Your task to perform on an android device: move a message to another label in the gmail app Image 0: 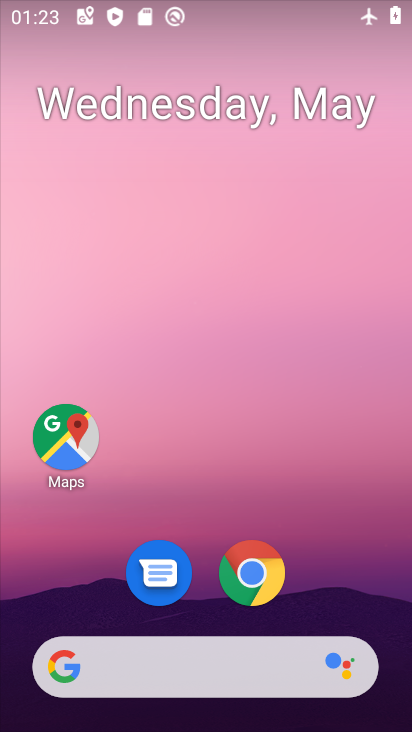
Step 0: drag from (361, 587) to (352, 321)
Your task to perform on an android device: move a message to another label in the gmail app Image 1: 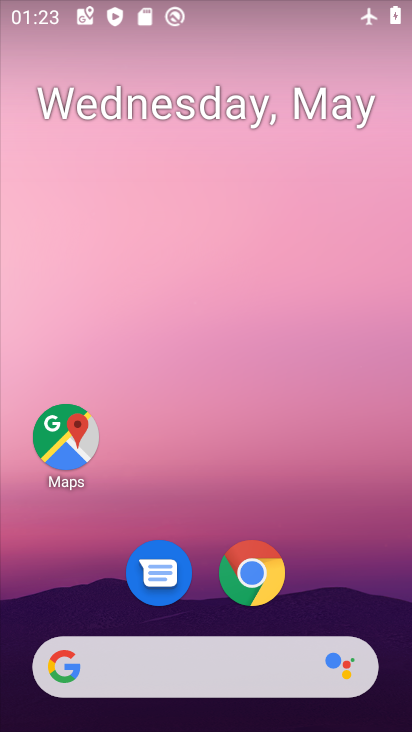
Step 1: drag from (303, 595) to (303, 244)
Your task to perform on an android device: move a message to another label in the gmail app Image 2: 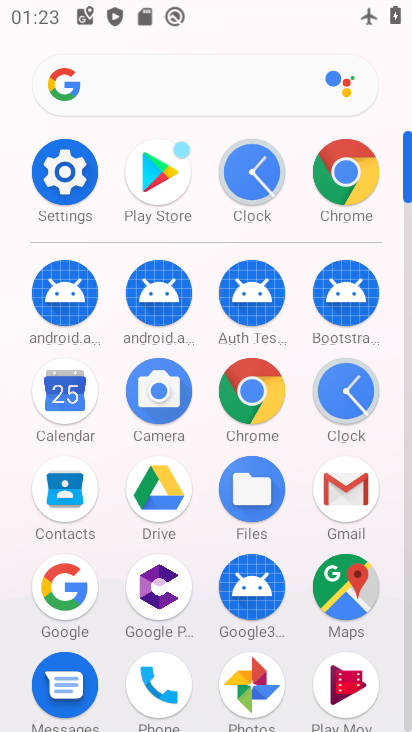
Step 2: click (337, 508)
Your task to perform on an android device: move a message to another label in the gmail app Image 3: 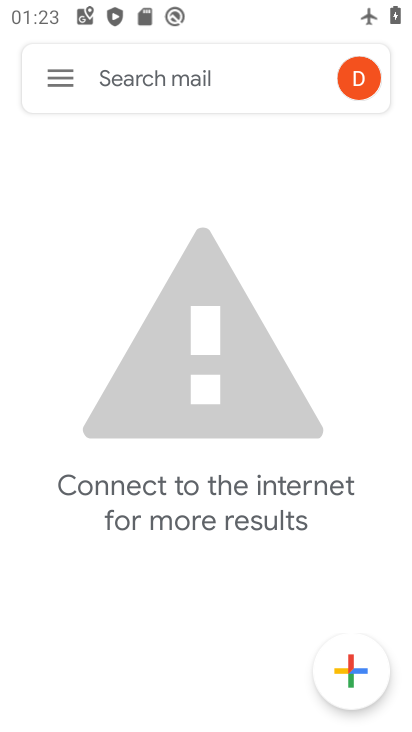
Step 3: click (65, 61)
Your task to perform on an android device: move a message to another label in the gmail app Image 4: 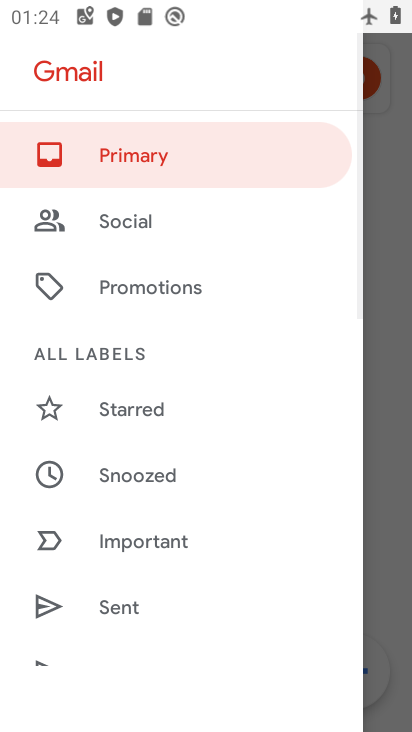
Step 4: drag from (181, 509) to (200, 214)
Your task to perform on an android device: move a message to another label in the gmail app Image 5: 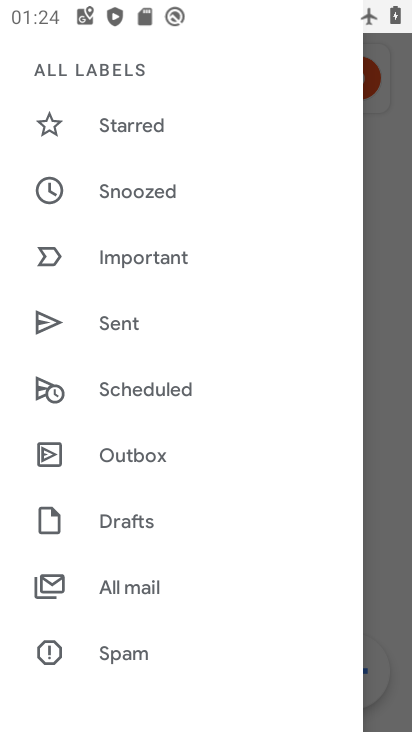
Step 5: click (143, 591)
Your task to perform on an android device: move a message to another label in the gmail app Image 6: 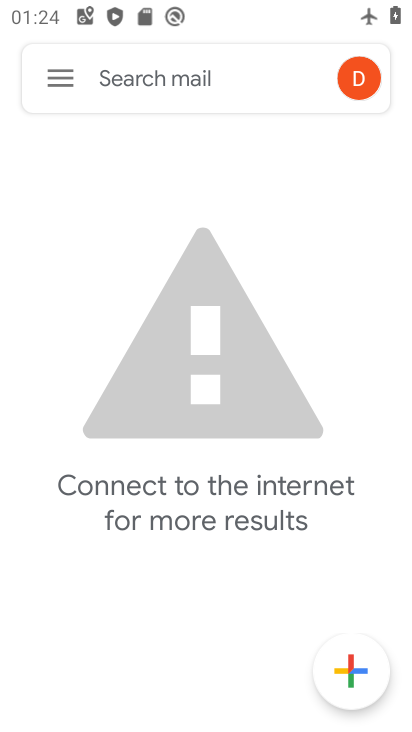
Step 6: task complete